Your task to perform on an android device: toggle notifications settings in the gmail app Image 0: 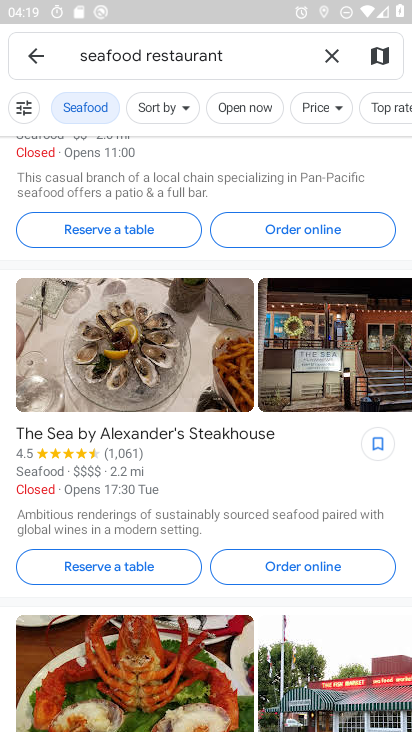
Step 0: press home button
Your task to perform on an android device: toggle notifications settings in the gmail app Image 1: 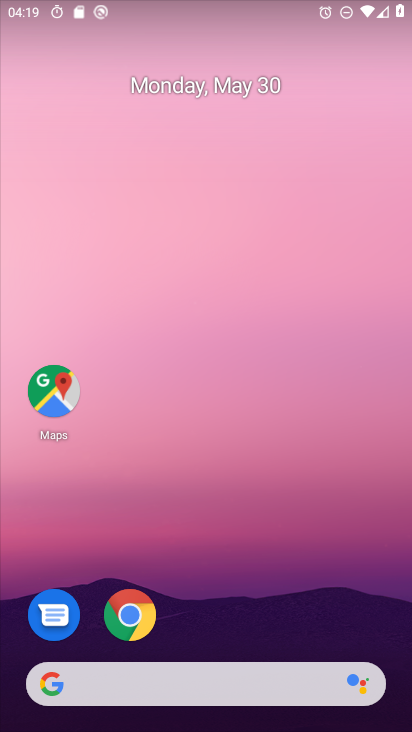
Step 1: drag from (255, 564) to (236, 141)
Your task to perform on an android device: toggle notifications settings in the gmail app Image 2: 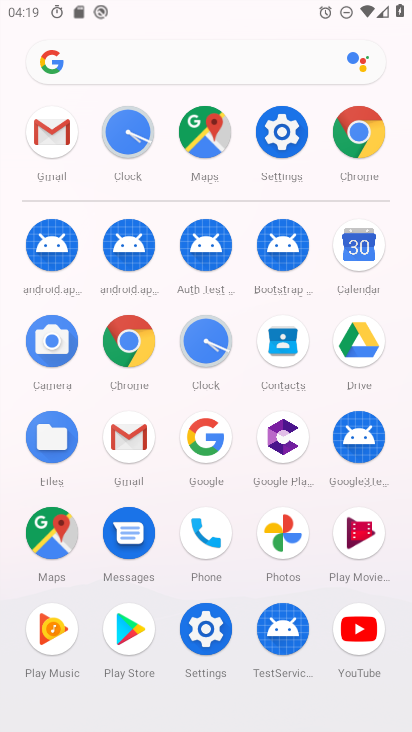
Step 2: click (53, 131)
Your task to perform on an android device: toggle notifications settings in the gmail app Image 3: 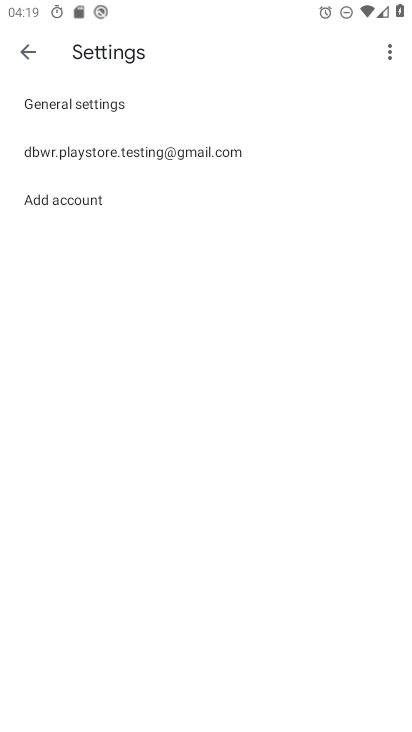
Step 3: click (107, 146)
Your task to perform on an android device: toggle notifications settings in the gmail app Image 4: 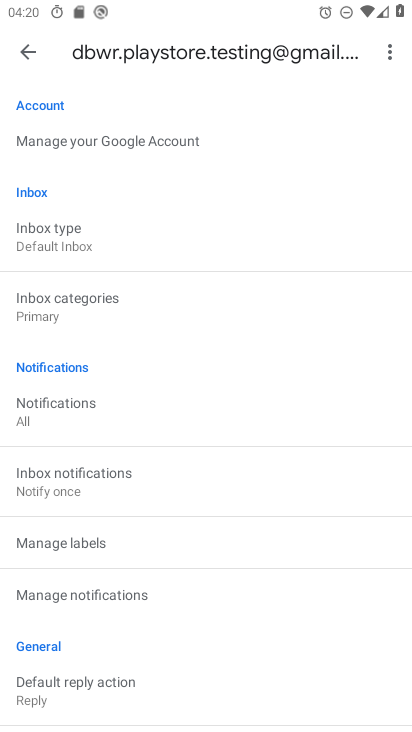
Step 4: click (125, 594)
Your task to perform on an android device: toggle notifications settings in the gmail app Image 5: 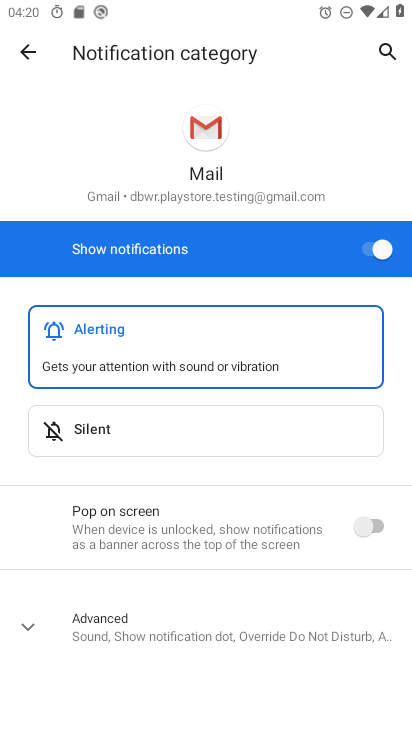
Step 5: click (371, 255)
Your task to perform on an android device: toggle notifications settings in the gmail app Image 6: 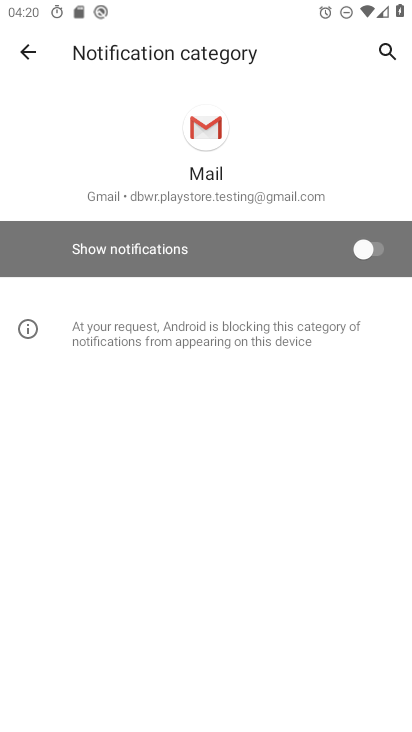
Step 6: task complete